Your task to perform on an android device: Open privacy settings Image 0: 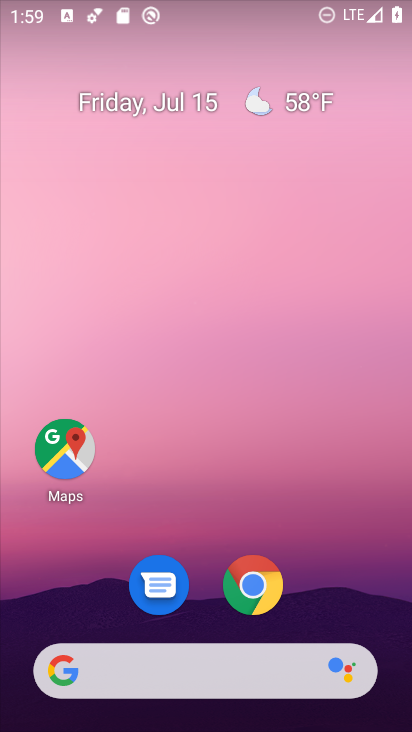
Step 0: drag from (315, 533) to (230, 33)
Your task to perform on an android device: Open privacy settings Image 1: 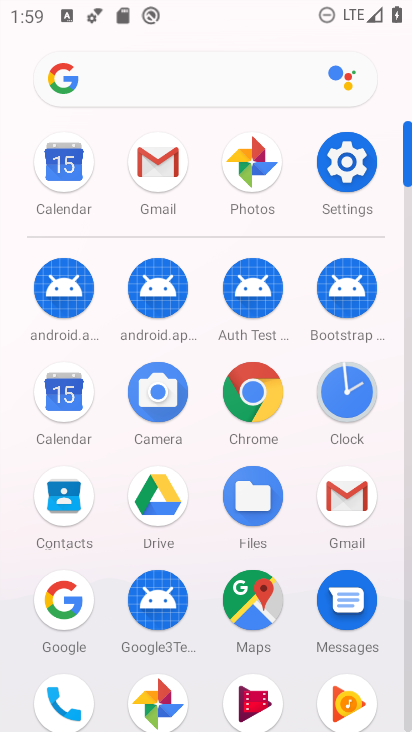
Step 1: click (342, 170)
Your task to perform on an android device: Open privacy settings Image 2: 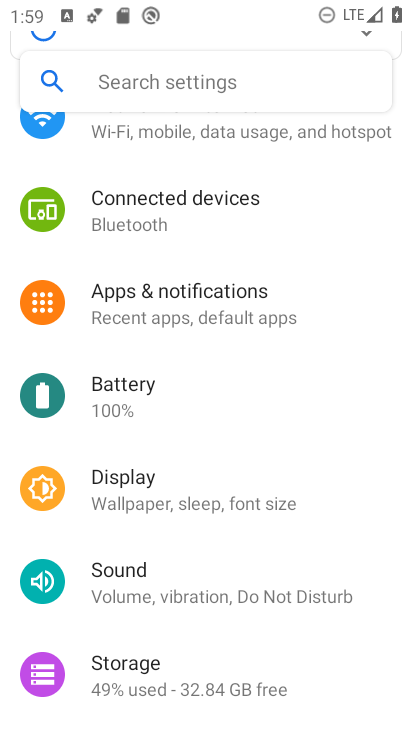
Step 2: drag from (269, 451) to (244, 69)
Your task to perform on an android device: Open privacy settings Image 3: 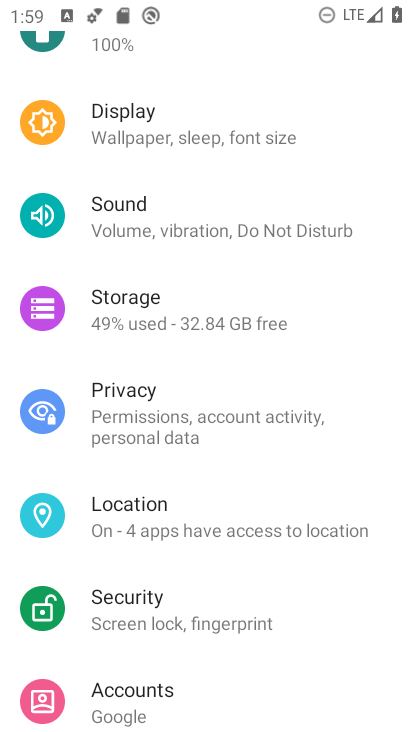
Step 3: click (240, 414)
Your task to perform on an android device: Open privacy settings Image 4: 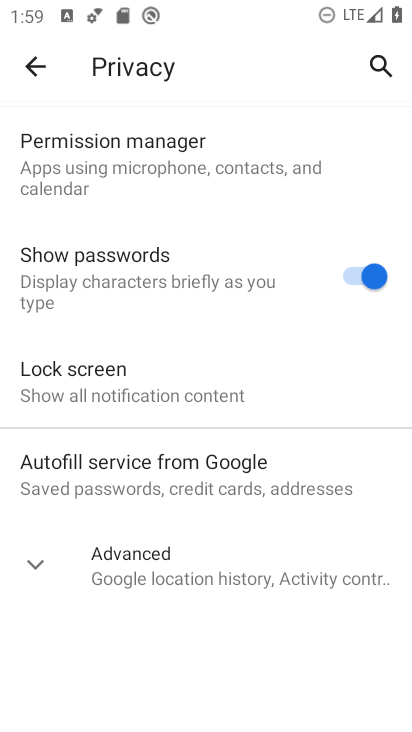
Step 4: task complete